Your task to perform on an android device: turn on location history Image 0: 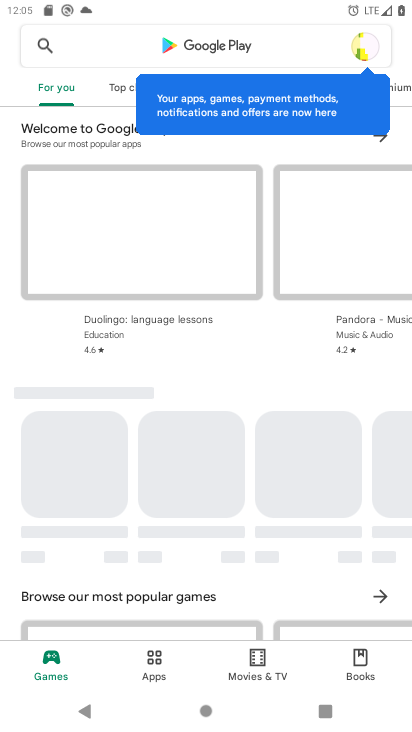
Step 0: press home button
Your task to perform on an android device: turn on location history Image 1: 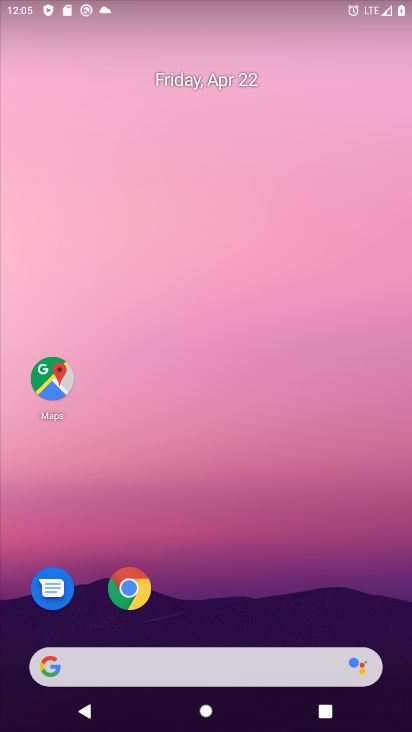
Step 1: drag from (260, 575) to (222, 239)
Your task to perform on an android device: turn on location history Image 2: 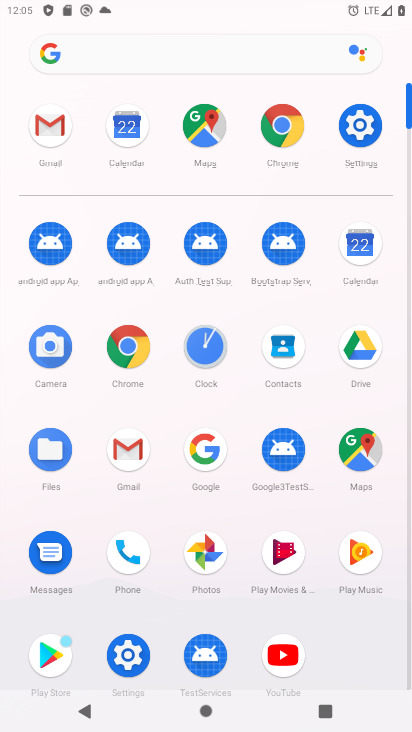
Step 2: click (356, 133)
Your task to perform on an android device: turn on location history Image 3: 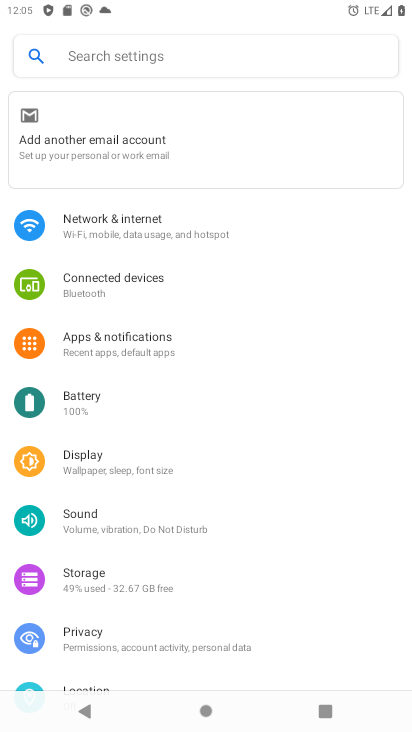
Step 3: click (154, 67)
Your task to perform on an android device: turn on location history Image 4: 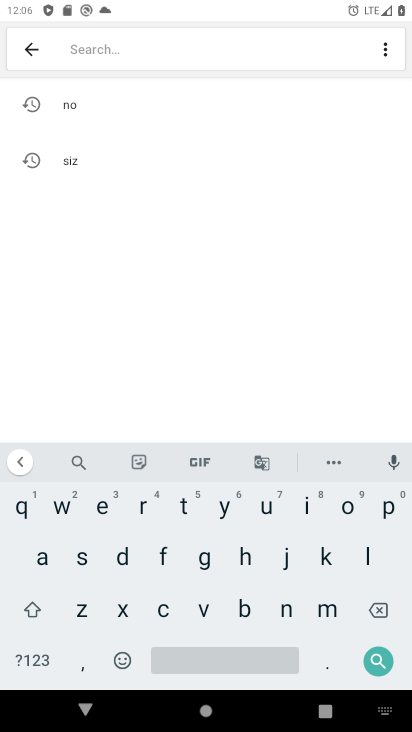
Step 4: click (363, 553)
Your task to perform on an android device: turn on location history Image 5: 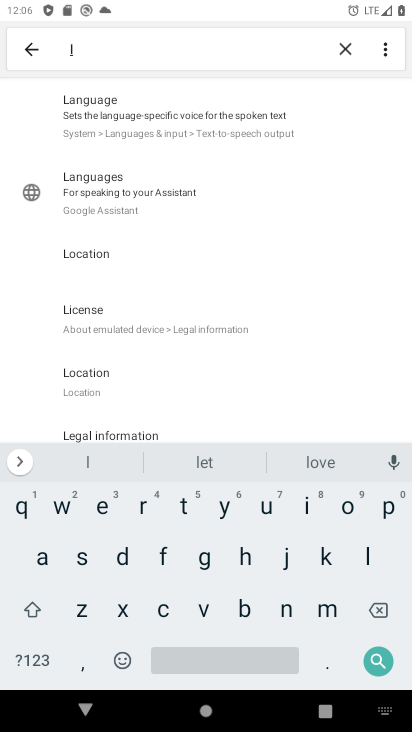
Step 5: click (88, 384)
Your task to perform on an android device: turn on location history Image 6: 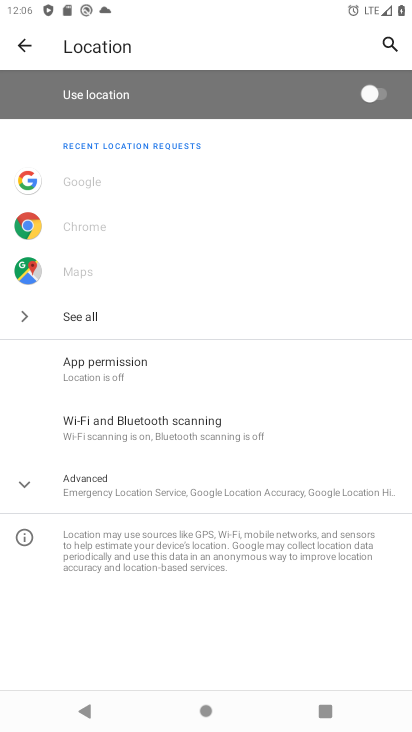
Step 6: click (36, 485)
Your task to perform on an android device: turn on location history Image 7: 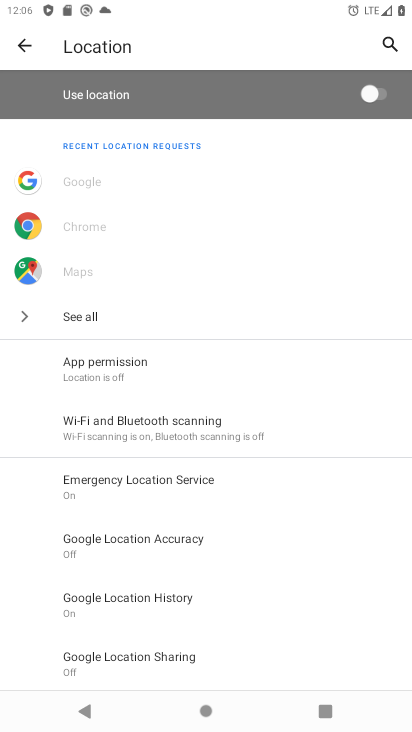
Step 7: click (116, 604)
Your task to perform on an android device: turn on location history Image 8: 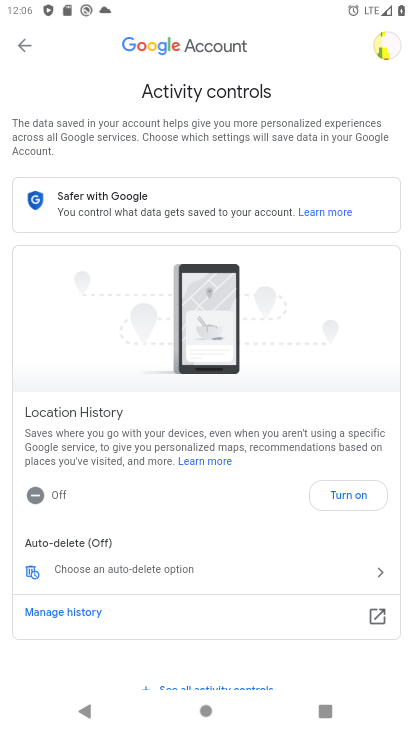
Step 8: drag from (198, 514) to (243, 410)
Your task to perform on an android device: turn on location history Image 9: 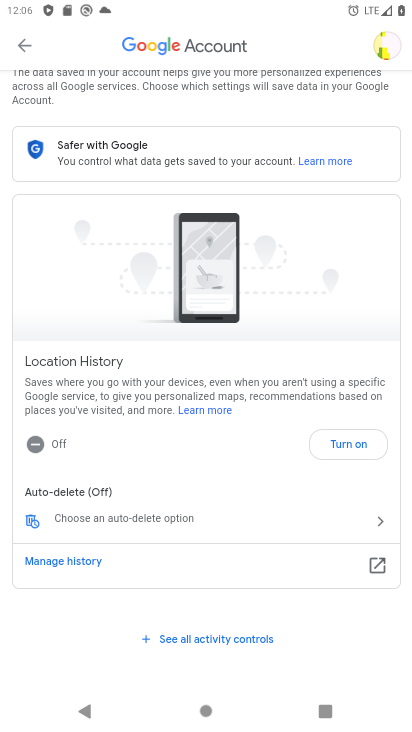
Step 9: click (334, 445)
Your task to perform on an android device: turn on location history Image 10: 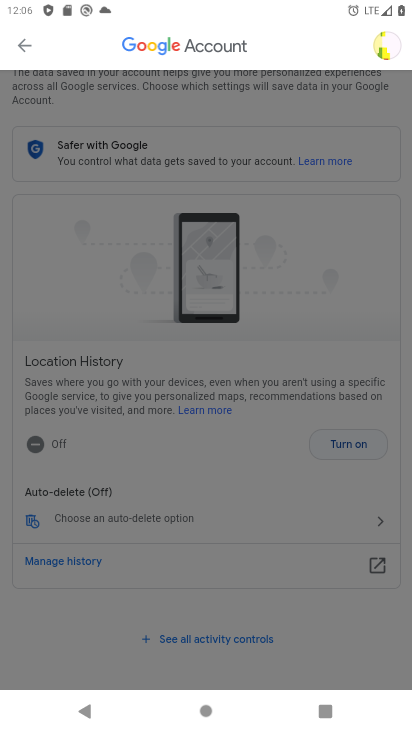
Step 10: task complete